Your task to perform on an android device: make emails show in primary in the gmail app Image 0: 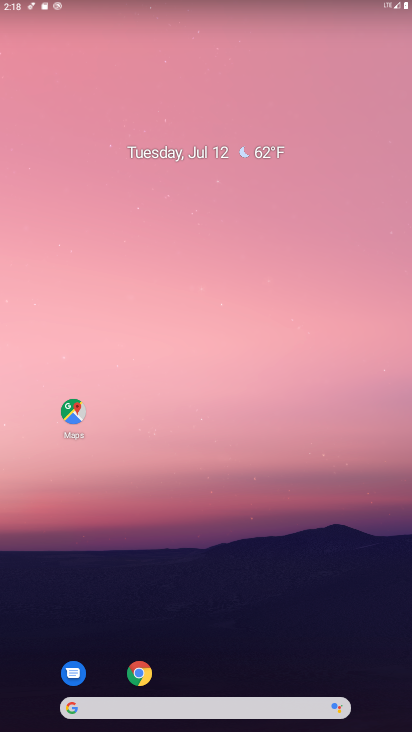
Step 0: click (202, 193)
Your task to perform on an android device: make emails show in primary in the gmail app Image 1: 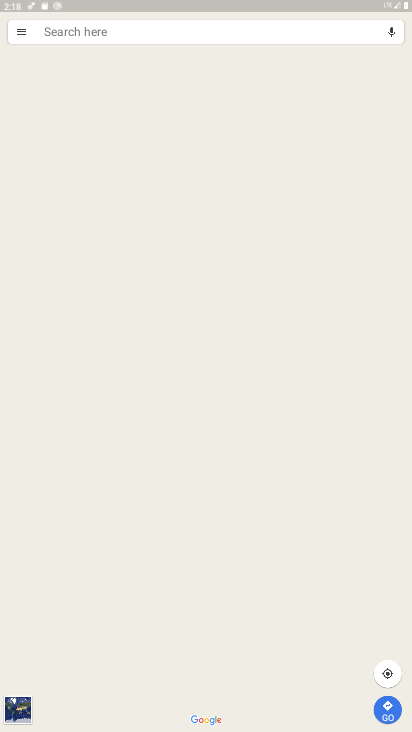
Step 1: drag from (237, 653) to (103, 108)
Your task to perform on an android device: make emails show in primary in the gmail app Image 2: 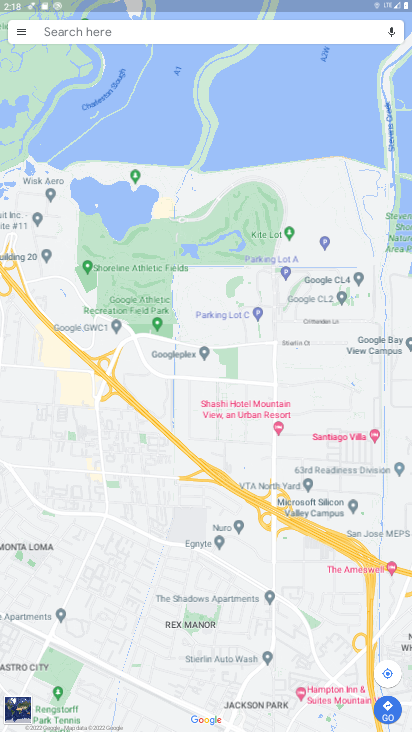
Step 2: press back button
Your task to perform on an android device: make emails show in primary in the gmail app Image 3: 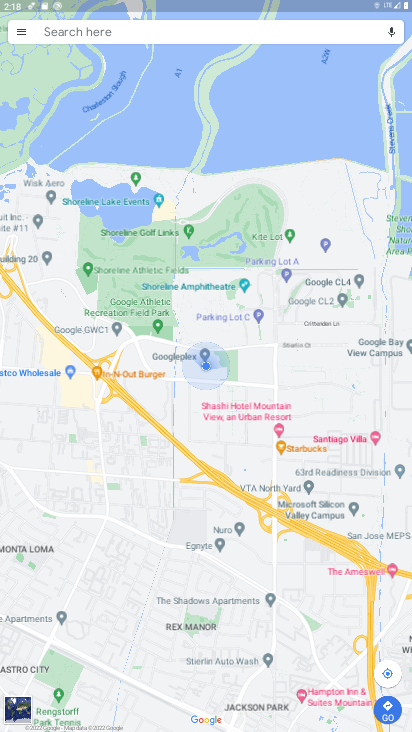
Step 3: click (190, 76)
Your task to perform on an android device: make emails show in primary in the gmail app Image 4: 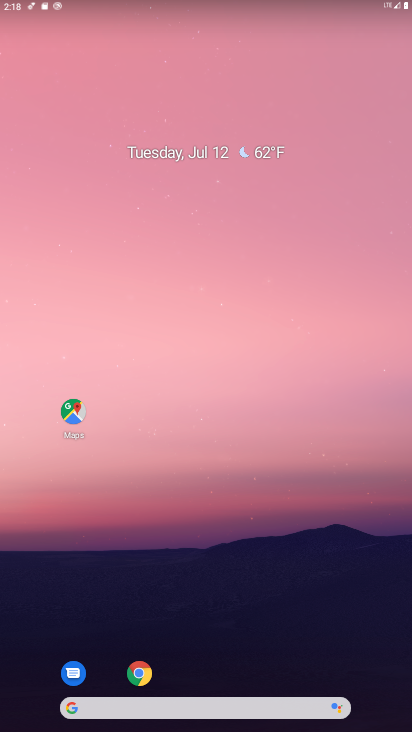
Step 4: drag from (272, 614) to (95, 77)
Your task to perform on an android device: make emails show in primary in the gmail app Image 5: 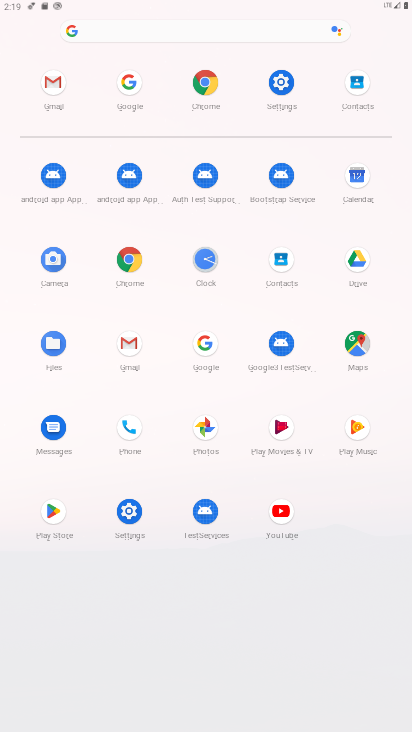
Step 5: click (126, 348)
Your task to perform on an android device: make emails show in primary in the gmail app Image 6: 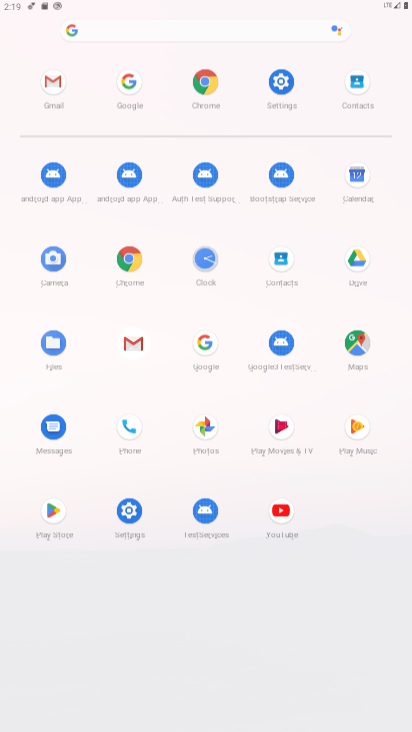
Step 6: click (132, 351)
Your task to perform on an android device: make emails show in primary in the gmail app Image 7: 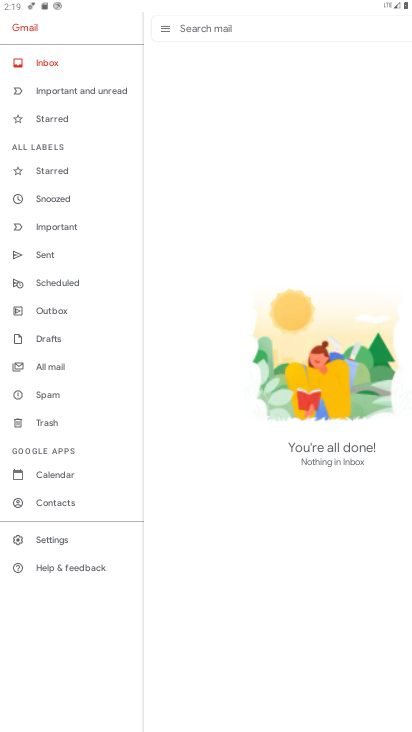
Step 7: click (53, 536)
Your task to perform on an android device: make emails show in primary in the gmail app Image 8: 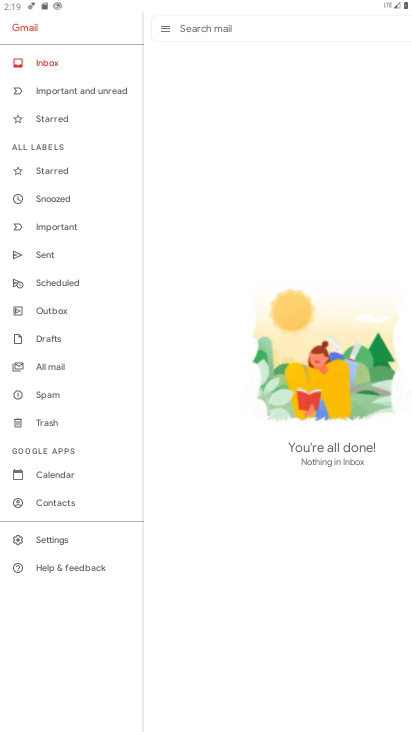
Step 8: click (55, 537)
Your task to perform on an android device: make emails show in primary in the gmail app Image 9: 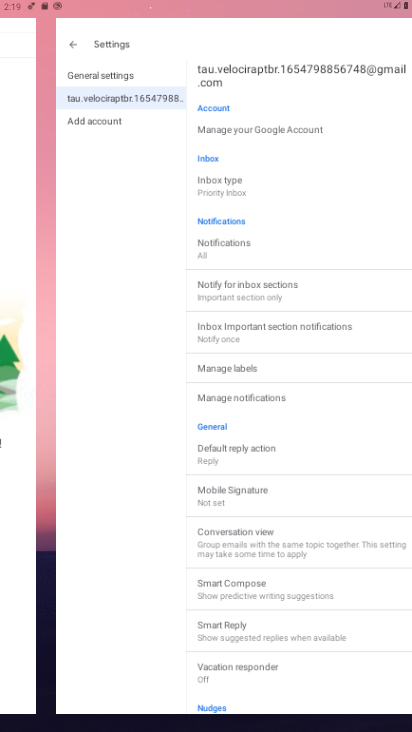
Step 9: click (56, 538)
Your task to perform on an android device: make emails show in primary in the gmail app Image 10: 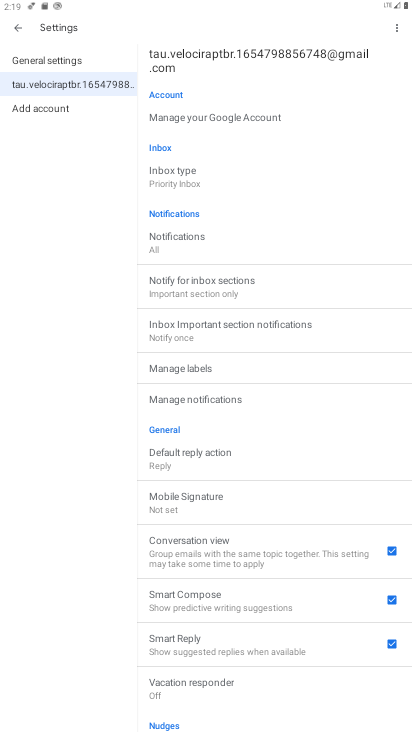
Step 10: click (64, 84)
Your task to perform on an android device: make emails show in primary in the gmail app Image 11: 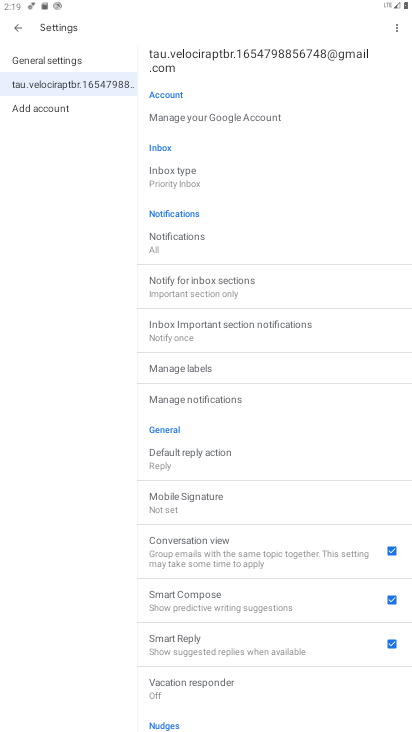
Step 11: click (175, 178)
Your task to perform on an android device: make emails show in primary in the gmail app Image 12: 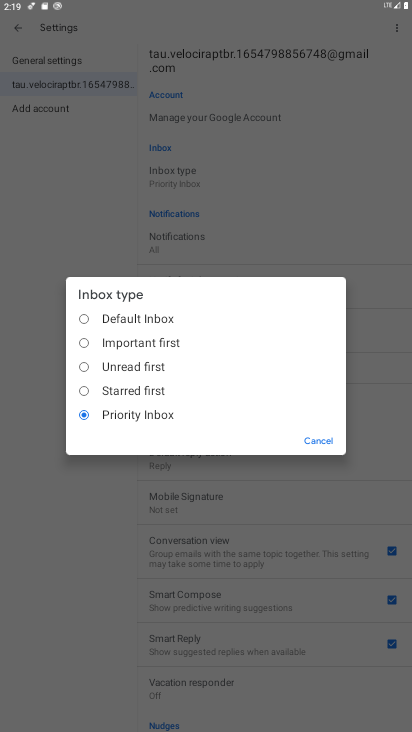
Step 12: click (77, 311)
Your task to perform on an android device: make emails show in primary in the gmail app Image 13: 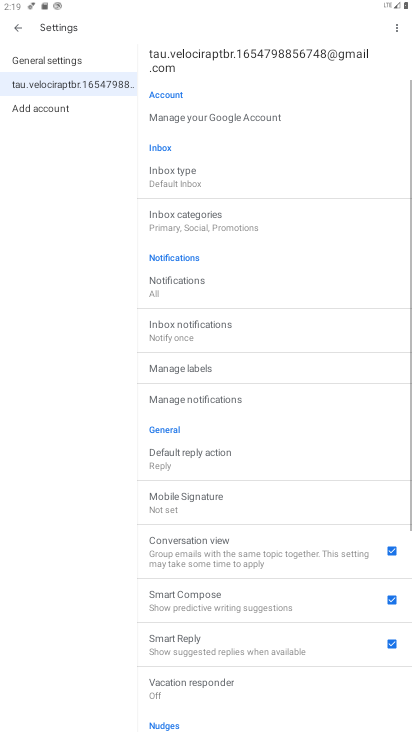
Step 13: click (179, 222)
Your task to perform on an android device: make emails show in primary in the gmail app Image 14: 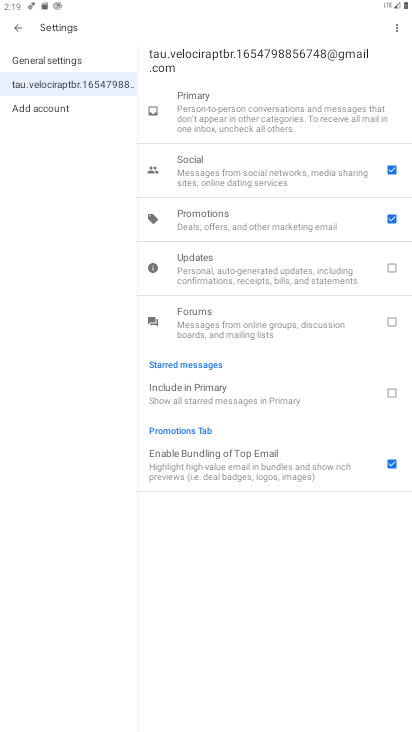
Step 14: click (160, 101)
Your task to perform on an android device: make emails show in primary in the gmail app Image 15: 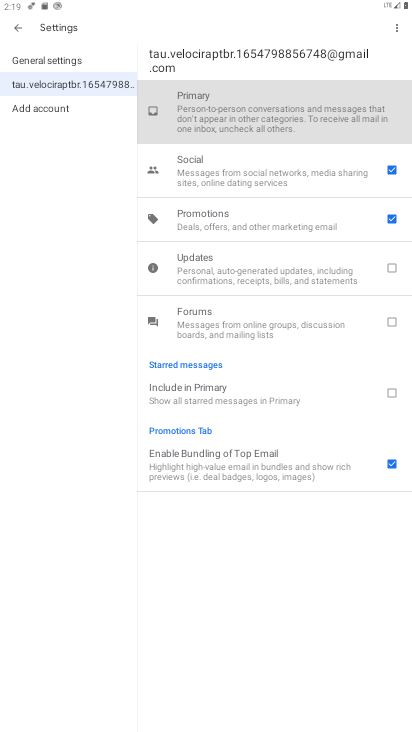
Step 15: drag from (184, 106) to (209, 165)
Your task to perform on an android device: make emails show in primary in the gmail app Image 16: 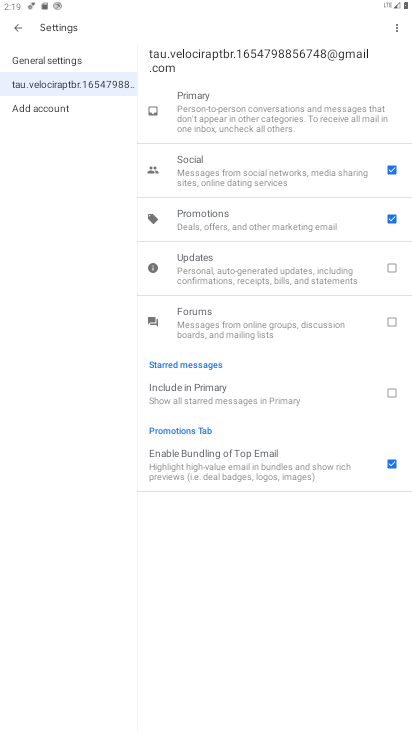
Step 16: click (18, 24)
Your task to perform on an android device: make emails show in primary in the gmail app Image 17: 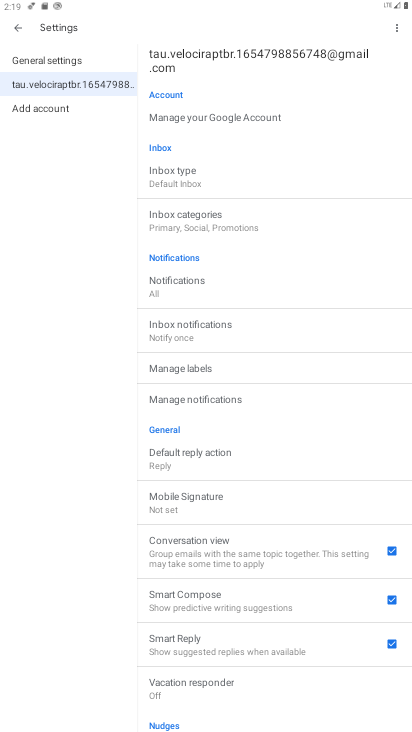
Step 17: task complete